Your task to perform on an android device: turn notification dots on Image 0: 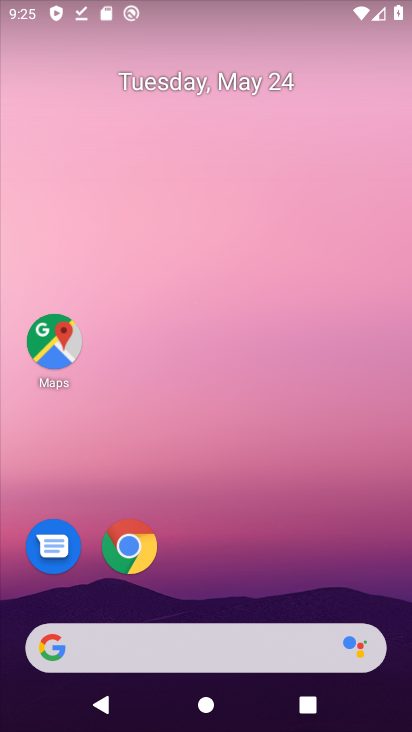
Step 0: drag from (227, 397) to (196, 120)
Your task to perform on an android device: turn notification dots on Image 1: 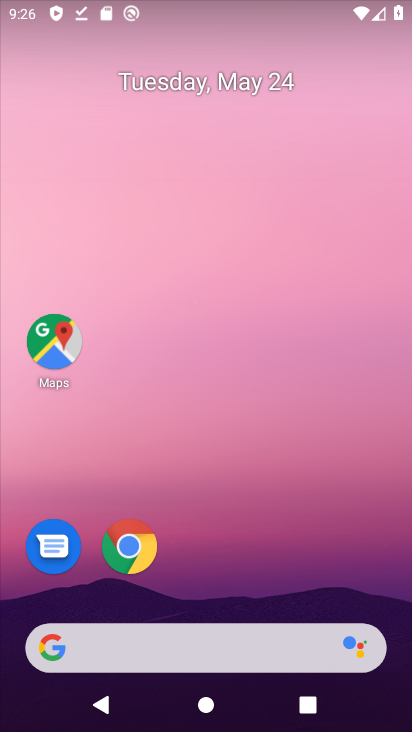
Step 1: drag from (236, 474) to (255, 15)
Your task to perform on an android device: turn notification dots on Image 2: 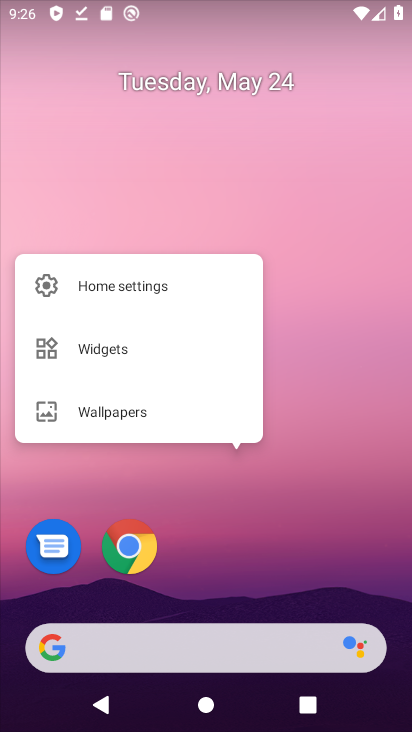
Step 2: click (155, 24)
Your task to perform on an android device: turn notification dots on Image 3: 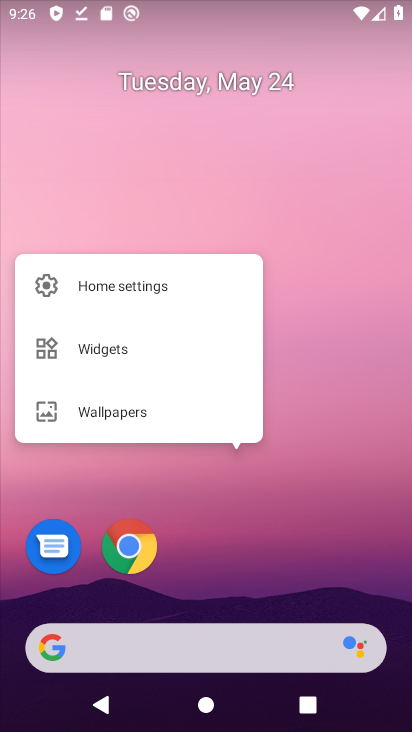
Step 3: click (313, 411)
Your task to perform on an android device: turn notification dots on Image 4: 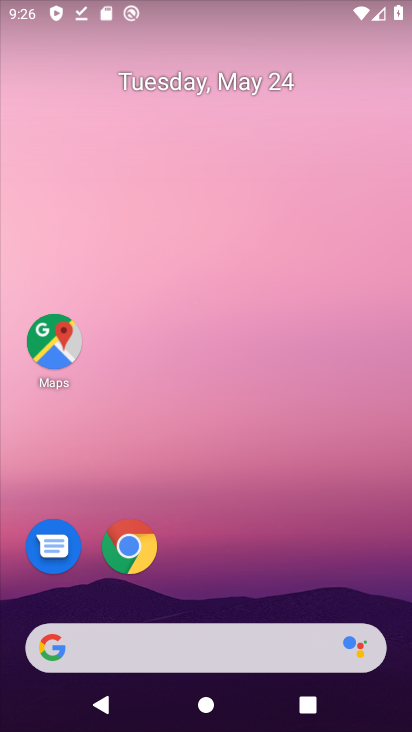
Step 4: click (313, 411)
Your task to perform on an android device: turn notification dots on Image 5: 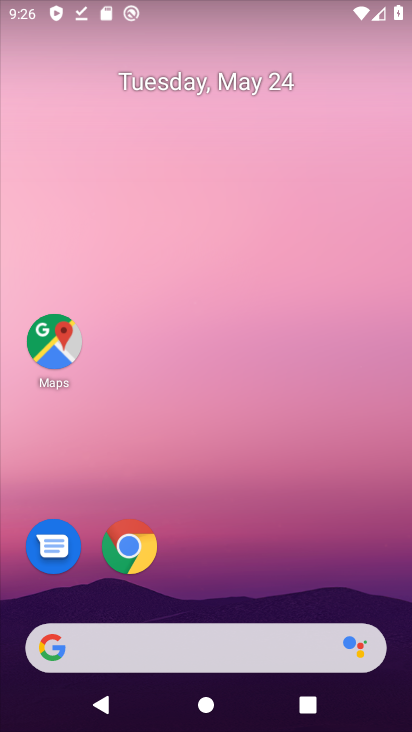
Step 5: drag from (258, 568) to (239, 18)
Your task to perform on an android device: turn notification dots on Image 6: 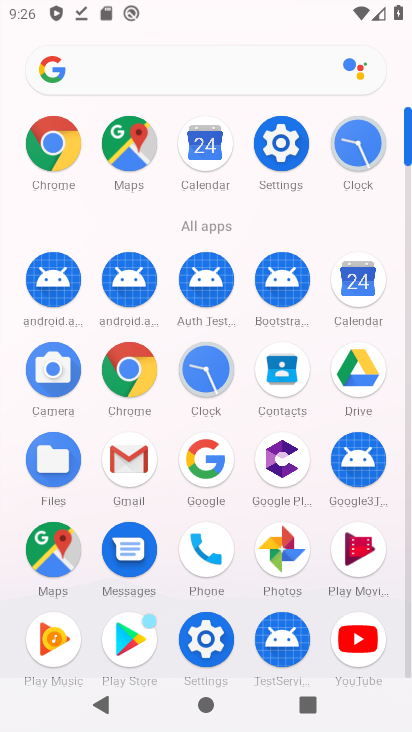
Step 6: click (282, 156)
Your task to perform on an android device: turn notification dots on Image 7: 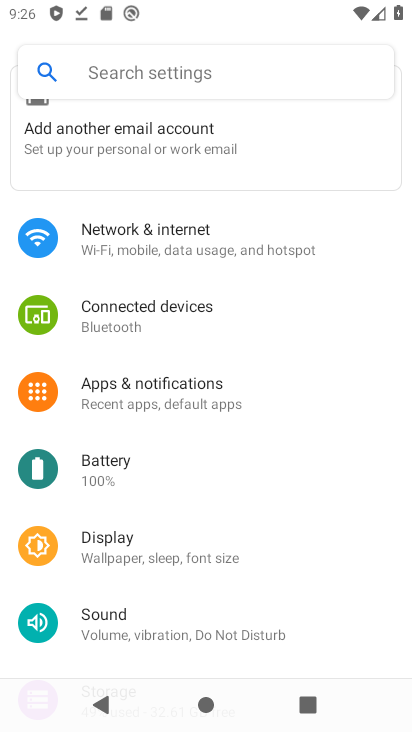
Step 7: click (159, 391)
Your task to perform on an android device: turn notification dots on Image 8: 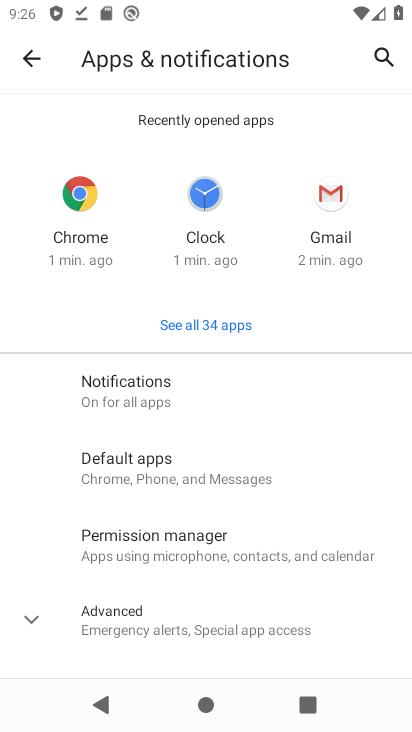
Step 8: click (130, 376)
Your task to perform on an android device: turn notification dots on Image 9: 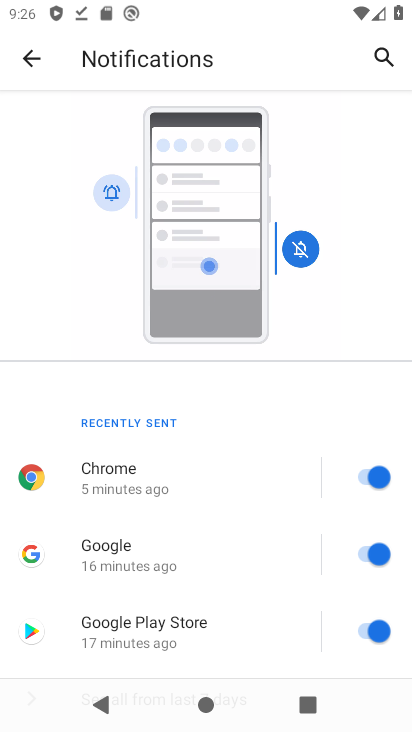
Step 9: drag from (219, 534) to (190, 216)
Your task to perform on an android device: turn notification dots on Image 10: 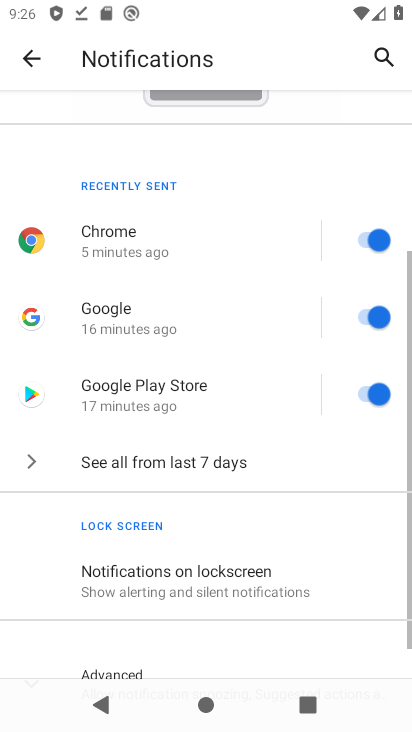
Step 10: drag from (276, 567) to (280, 284)
Your task to perform on an android device: turn notification dots on Image 11: 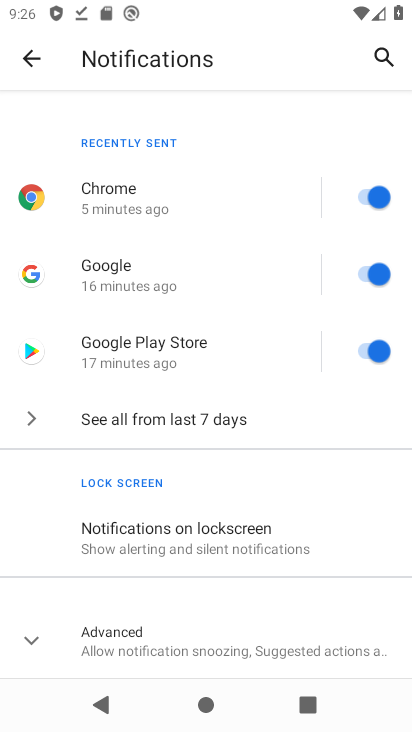
Step 11: click (32, 636)
Your task to perform on an android device: turn notification dots on Image 12: 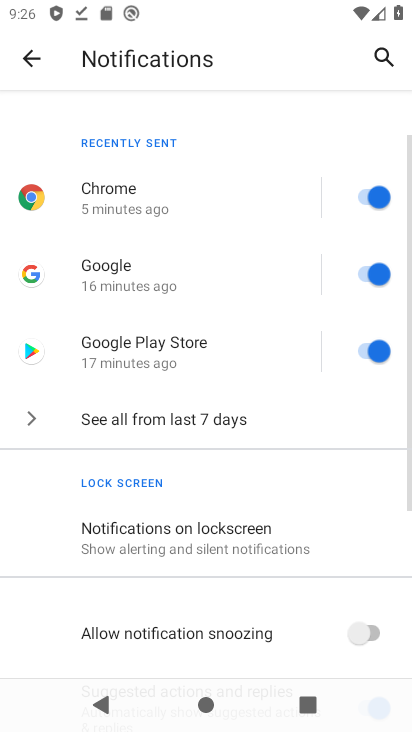
Step 12: task complete